Your task to perform on an android device: Search for sushi restaurants on Maps Image 0: 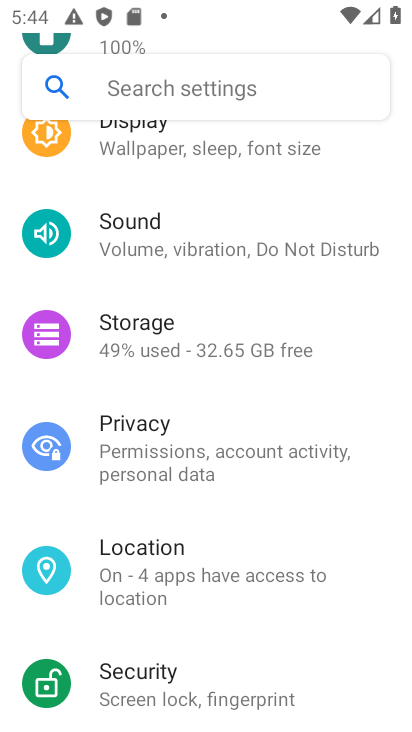
Step 0: press home button
Your task to perform on an android device: Search for sushi restaurants on Maps Image 1: 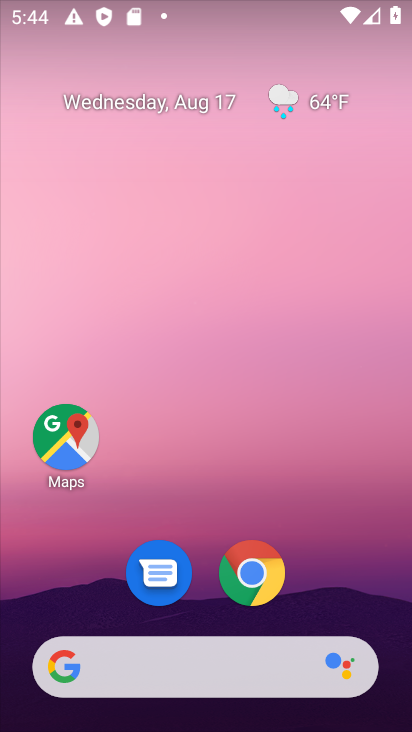
Step 1: drag from (365, 383) to (411, 92)
Your task to perform on an android device: Search for sushi restaurants on Maps Image 2: 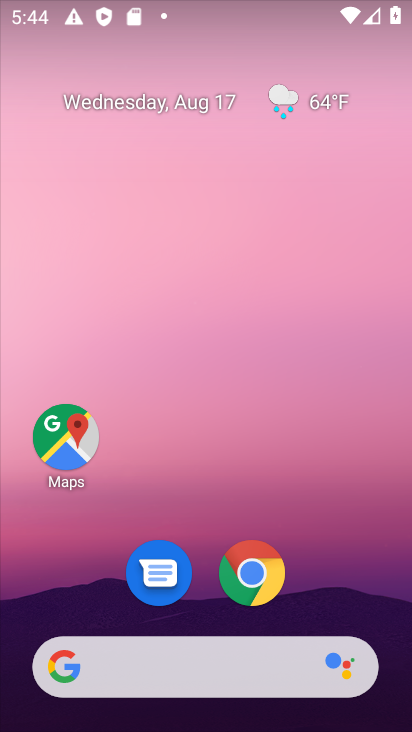
Step 2: drag from (299, 556) to (316, 93)
Your task to perform on an android device: Search for sushi restaurants on Maps Image 3: 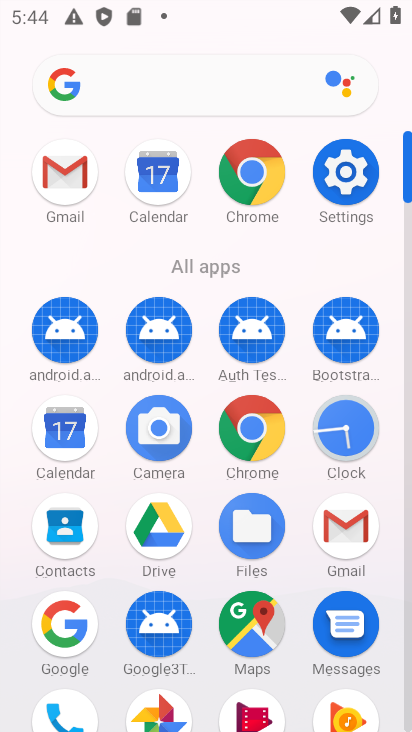
Step 3: click (260, 650)
Your task to perform on an android device: Search for sushi restaurants on Maps Image 4: 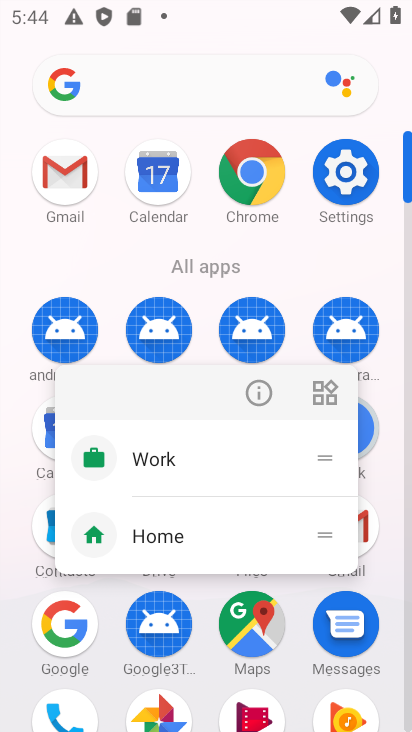
Step 4: click (250, 647)
Your task to perform on an android device: Search for sushi restaurants on Maps Image 5: 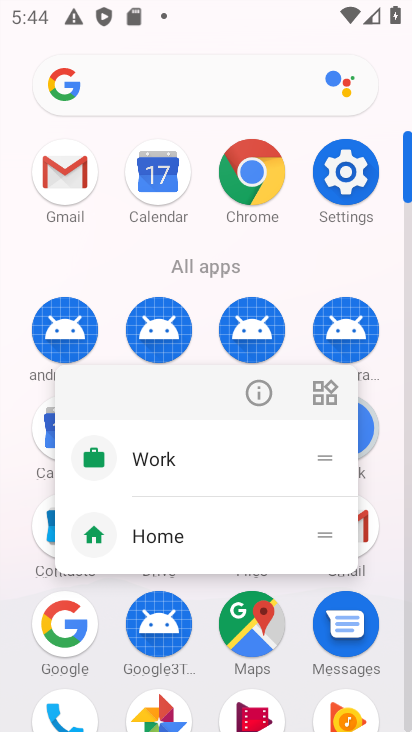
Step 5: click (243, 623)
Your task to perform on an android device: Search for sushi restaurants on Maps Image 6: 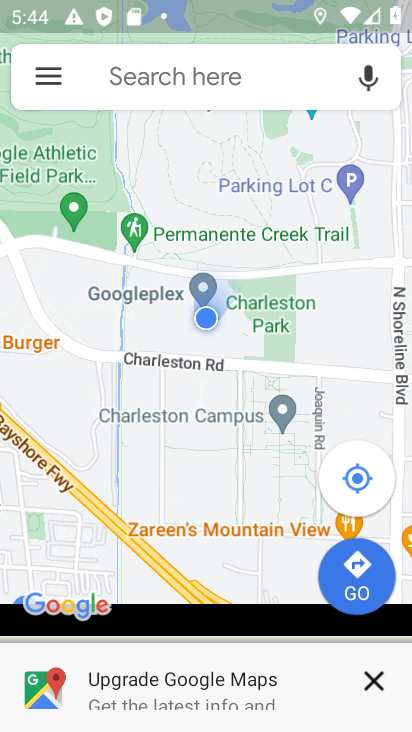
Step 6: click (114, 79)
Your task to perform on an android device: Search for sushi restaurants on Maps Image 7: 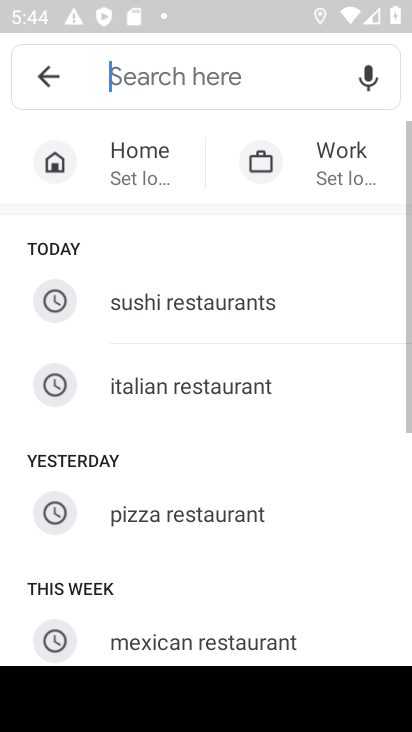
Step 7: click (156, 291)
Your task to perform on an android device: Search for sushi restaurants on Maps Image 8: 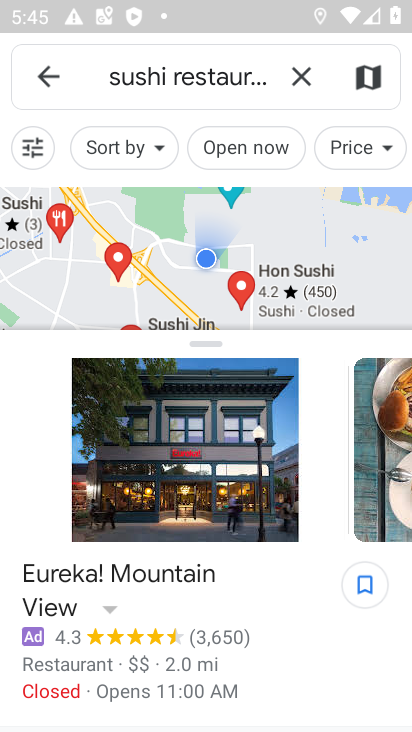
Step 8: task complete